Your task to perform on an android device: Add "dell xps" to the cart on walmart.com, then select checkout. Image 0: 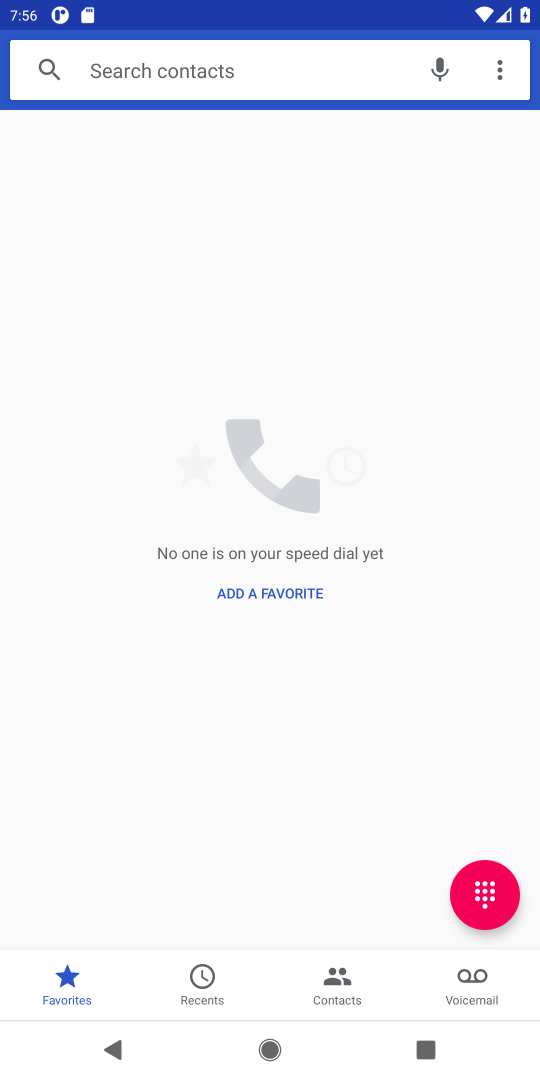
Step 0: press home button
Your task to perform on an android device: Add "dell xps" to the cart on walmart.com, then select checkout. Image 1: 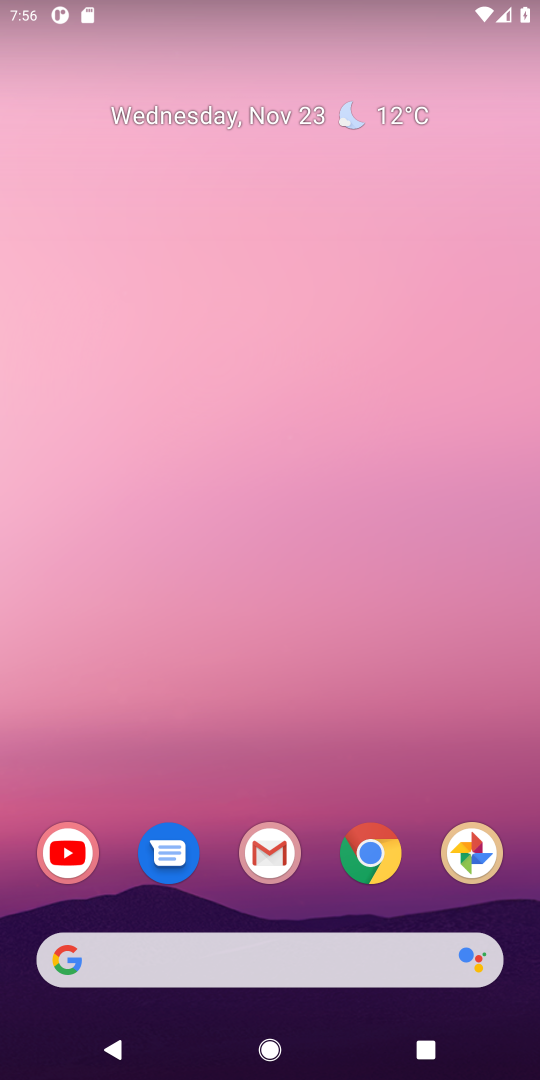
Step 1: click (374, 853)
Your task to perform on an android device: Add "dell xps" to the cart on walmart.com, then select checkout. Image 2: 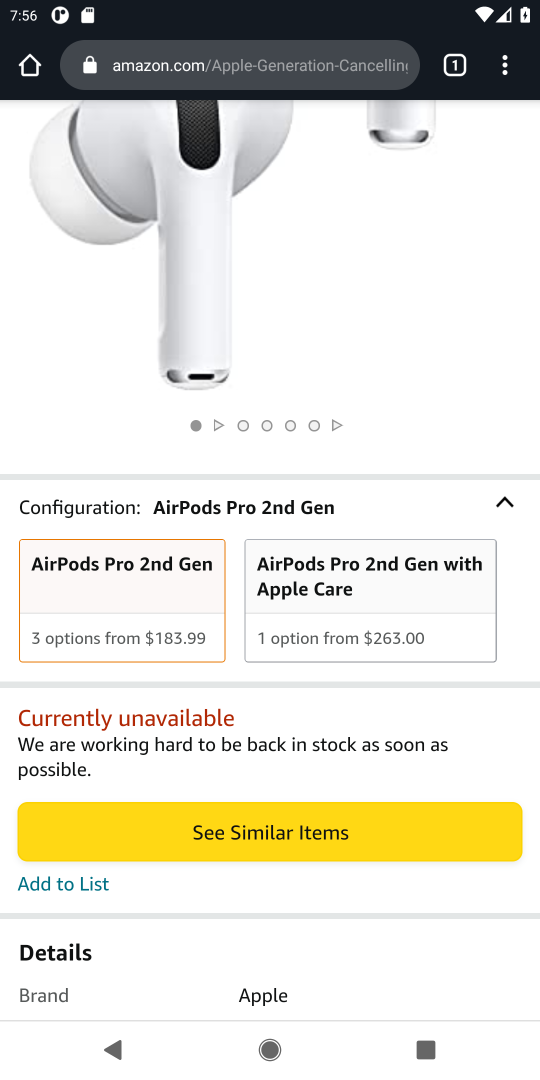
Step 2: click (217, 74)
Your task to perform on an android device: Add "dell xps" to the cart on walmart.com, then select checkout. Image 3: 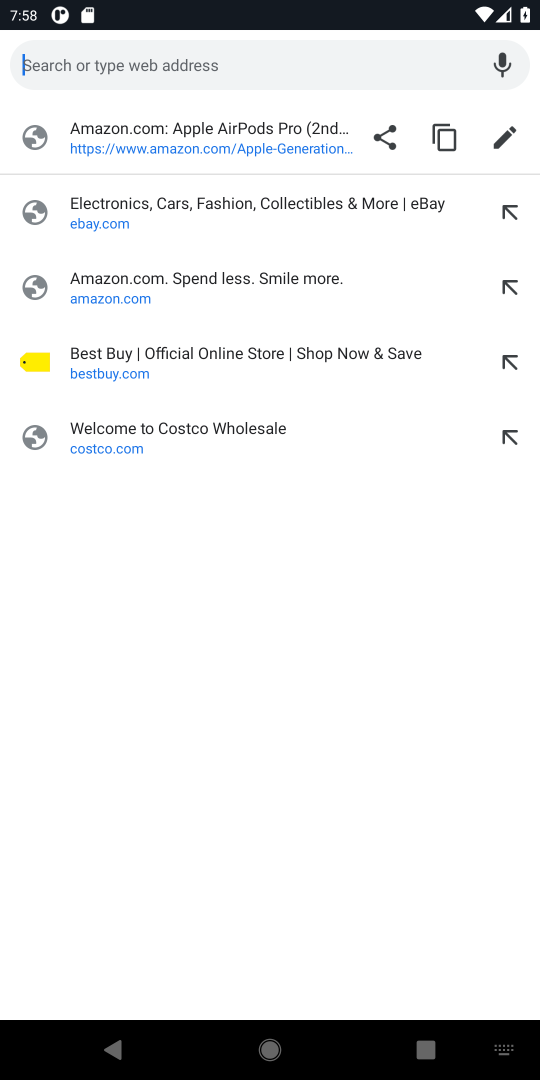
Step 3: type "walmart.com"
Your task to perform on an android device: Add "dell xps" to the cart on walmart.com, then select checkout. Image 4: 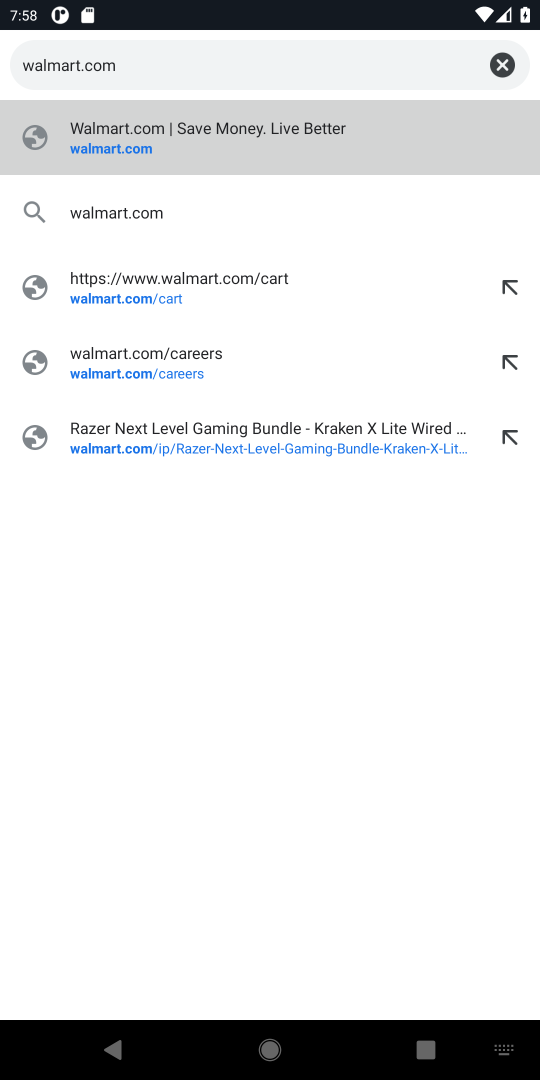
Step 4: click (126, 148)
Your task to perform on an android device: Add "dell xps" to the cart on walmart.com, then select checkout. Image 5: 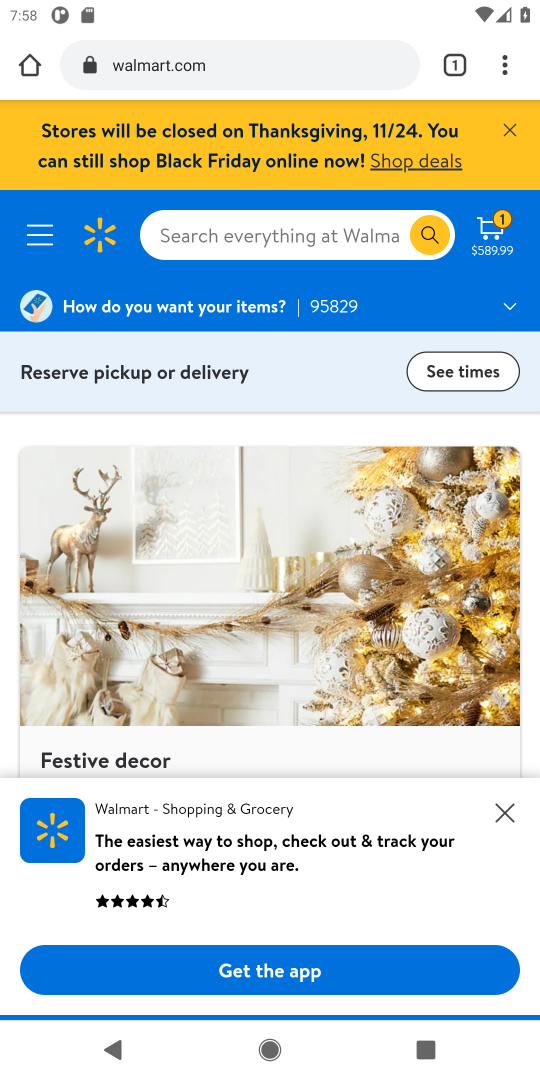
Step 5: click (286, 243)
Your task to perform on an android device: Add "dell xps" to the cart on walmart.com, then select checkout. Image 6: 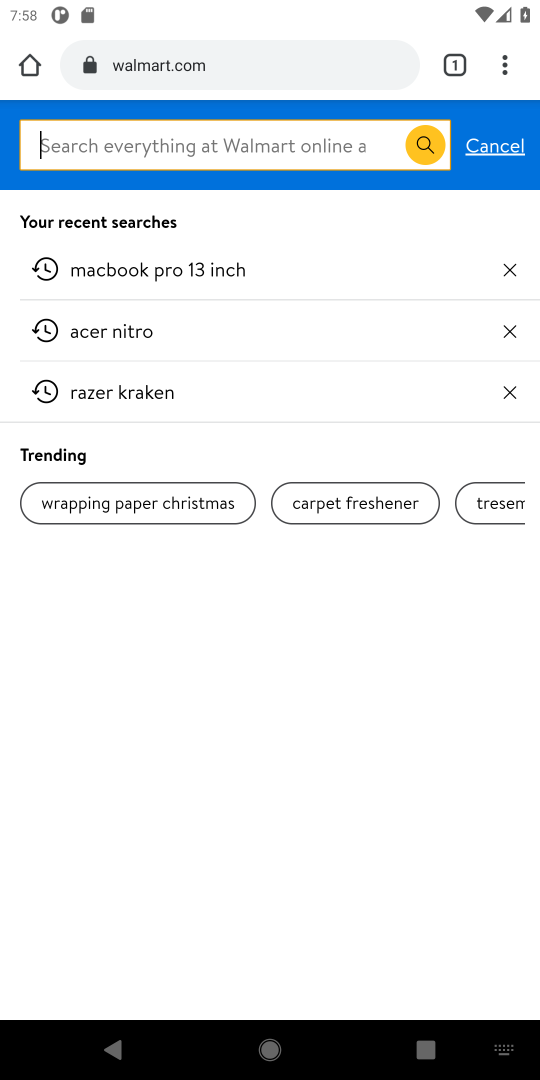
Step 6: type "dell xps"
Your task to perform on an android device: Add "dell xps" to the cart on walmart.com, then select checkout. Image 7: 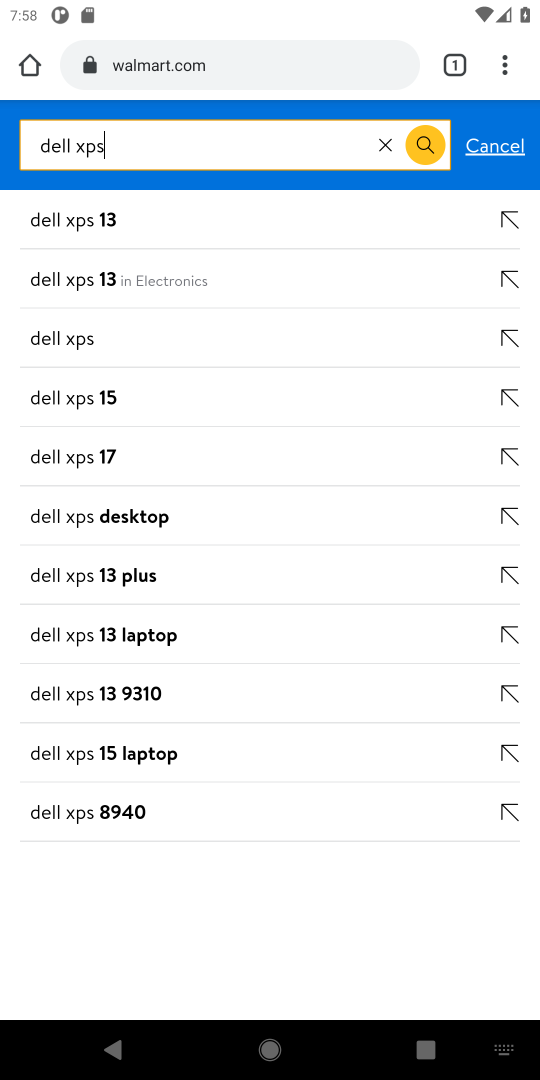
Step 7: click (61, 344)
Your task to perform on an android device: Add "dell xps" to the cart on walmart.com, then select checkout. Image 8: 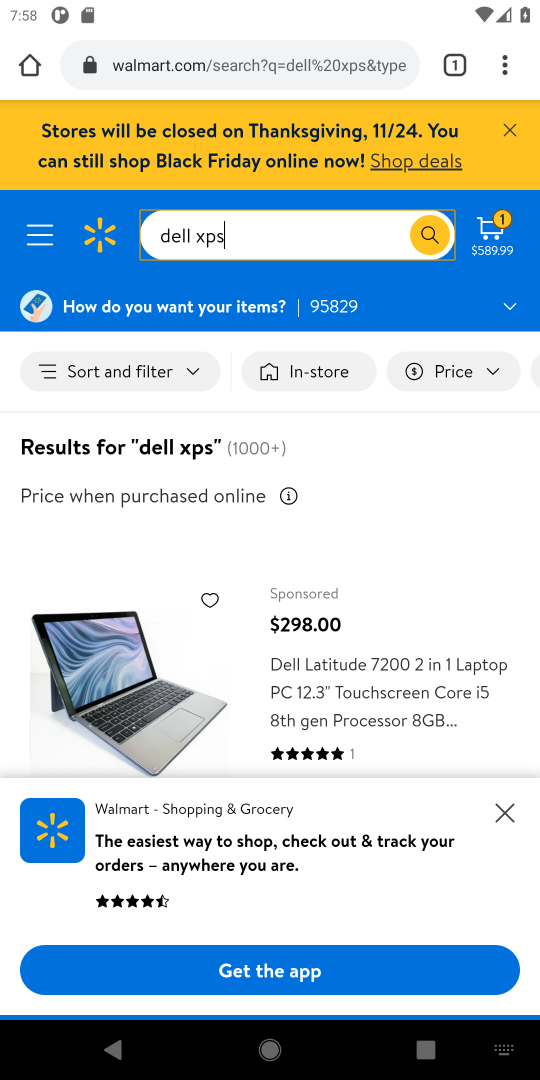
Step 8: click (505, 816)
Your task to perform on an android device: Add "dell xps" to the cart on walmart.com, then select checkout. Image 9: 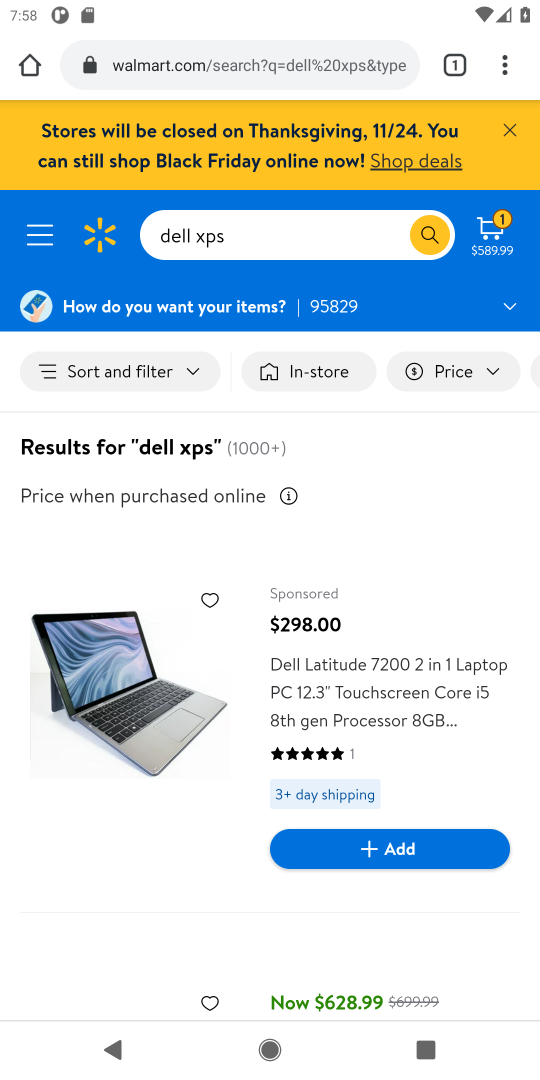
Step 9: drag from (197, 730) to (146, 371)
Your task to perform on an android device: Add "dell xps" to the cart on walmart.com, then select checkout. Image 10: 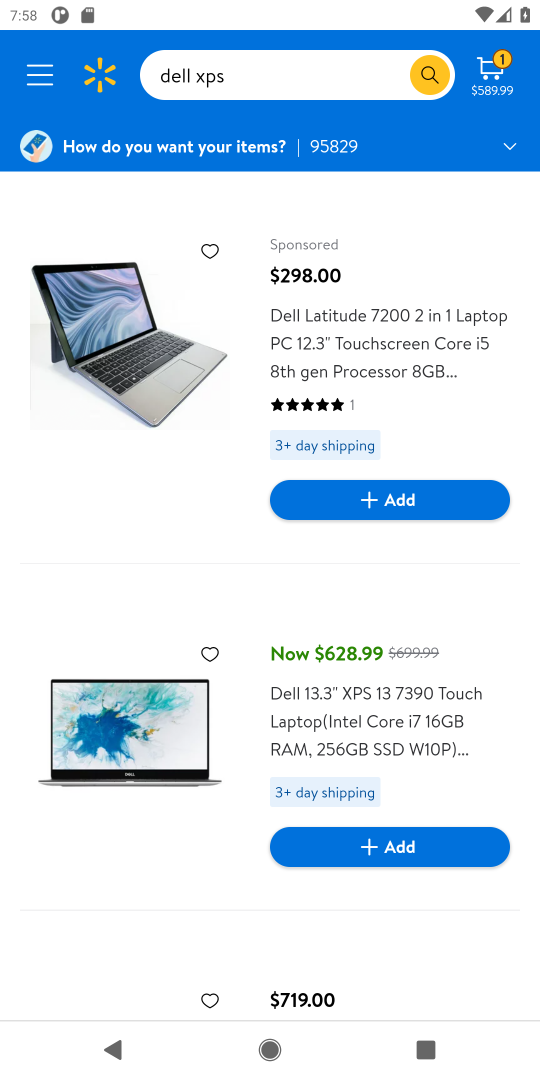
Step 10: drag from (169, 749) to (177, 459)
Your task to perform on an android device: Add "dell xps" to the cart on walmart.com, then select checkout. Image 11: 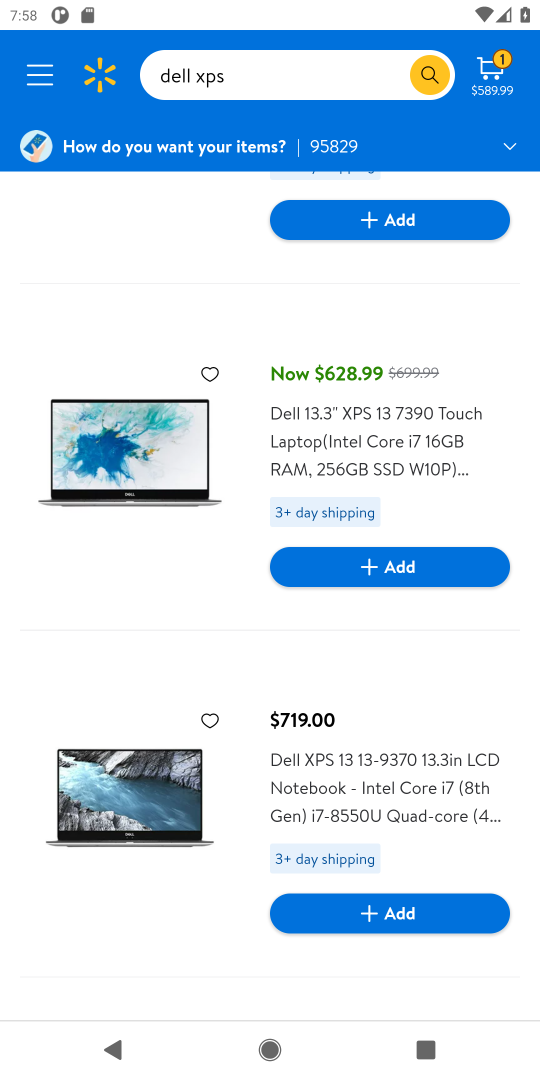
Step 11: click (387, 572)
Your task to perform on an android device: Add "dell xps" to the cart on walmart.com, then select checkout. Image 12: 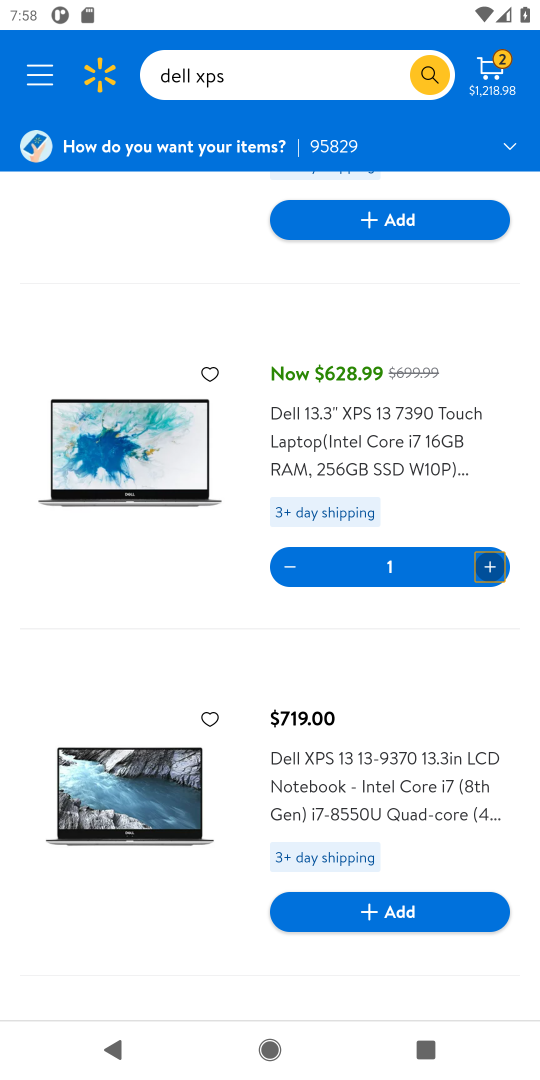
Step 12: click (499, 59)
Your task to perform on an android device: Add "dell xps" to the cart on walmart.com, then select checkout. Image 13: 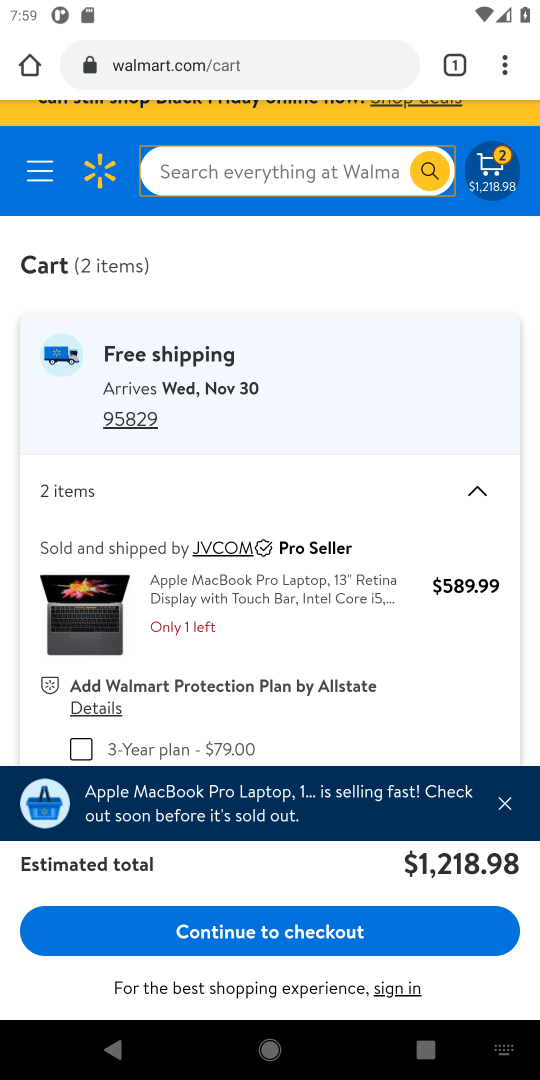
Step 13: click (235, 932)
Your task to perform on an android device: Add "dell xps" to the cart on walmart.com, then select checkout. Image 14: 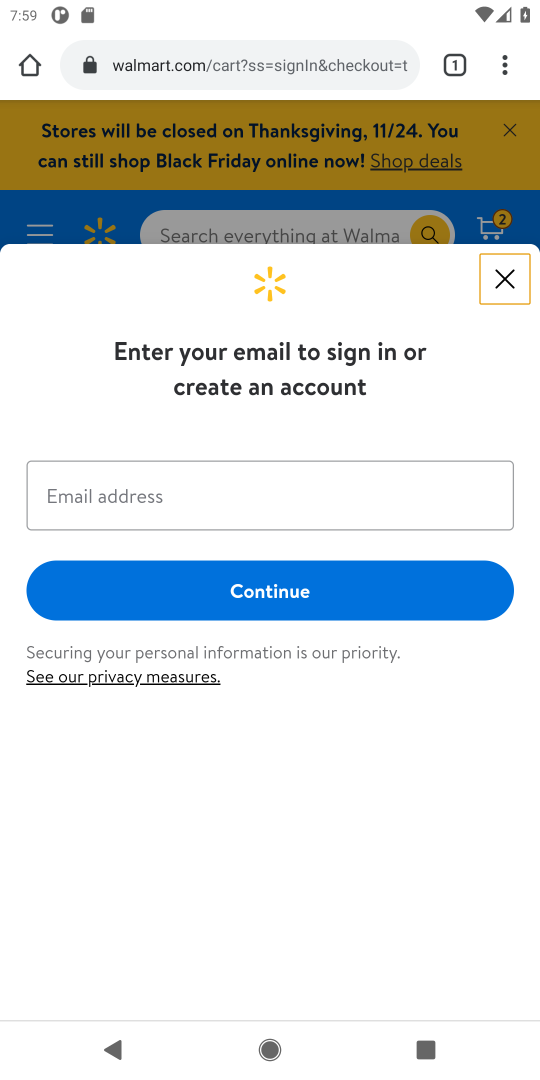
Step 14: task complete